Your task to perform on an android device: change the clock display to digital Image 0: 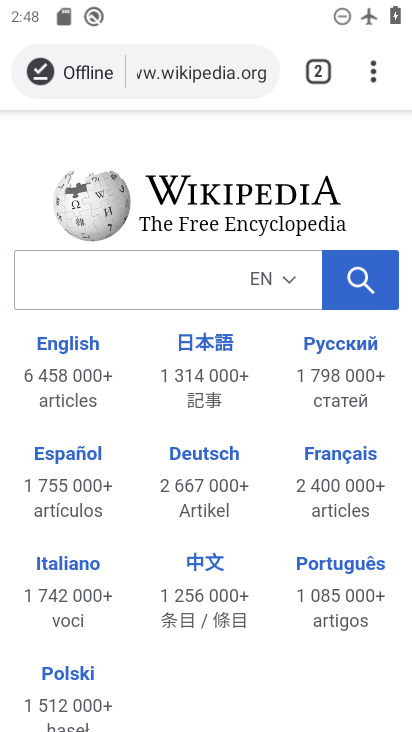
Step 0: press home button
Your task to perform on an android device: change the clock display to digital Image 1: 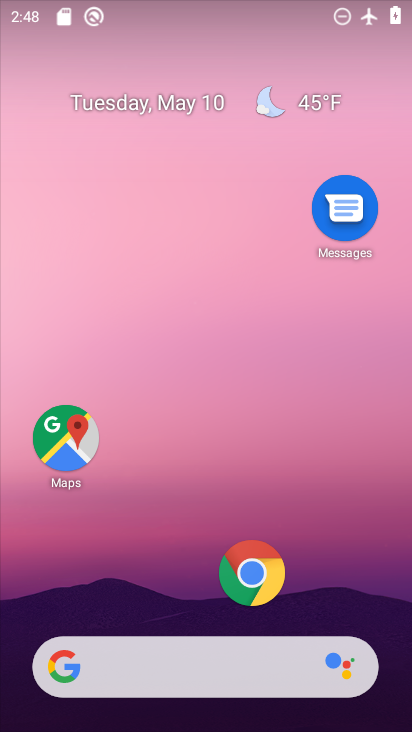
Step 1: drag from (204, 597) to (224, 204)
Your task to perform on an android device: change the clock display to digital Image 2: 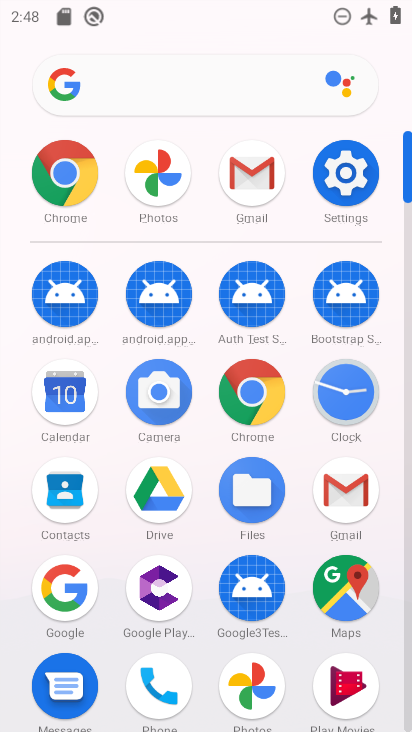
Step 2: click (344, 394)
Your task to perform on an android device: change the clock display to digital Image 3: 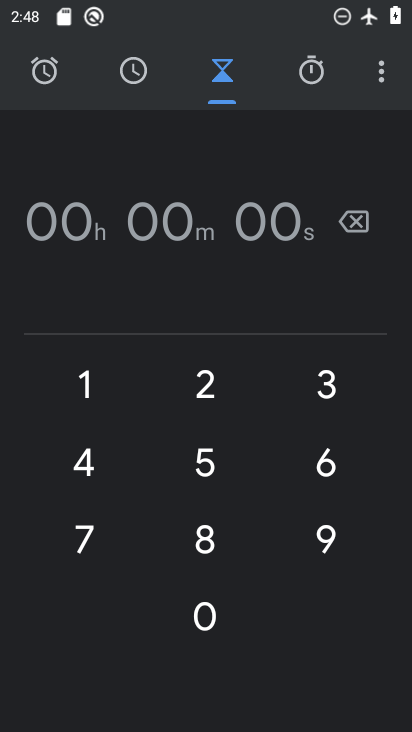
Step 3: click (384, 74)
Your task to perform on an android device: change the clock display to digital Image 4: 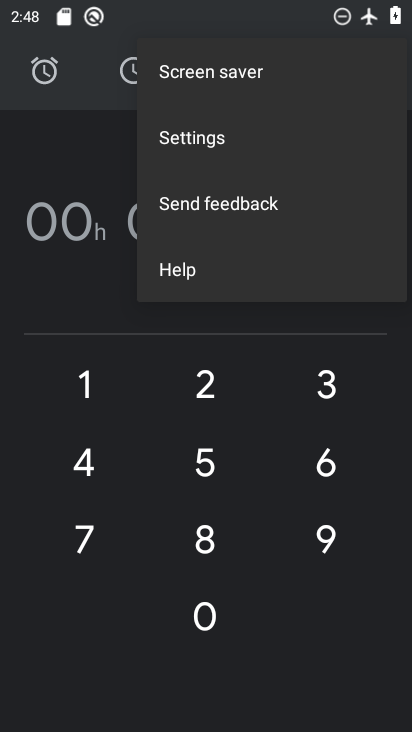
Step 4: click (195, 155)
Your task to perform on an android device: change the clock display to digital Image 5: 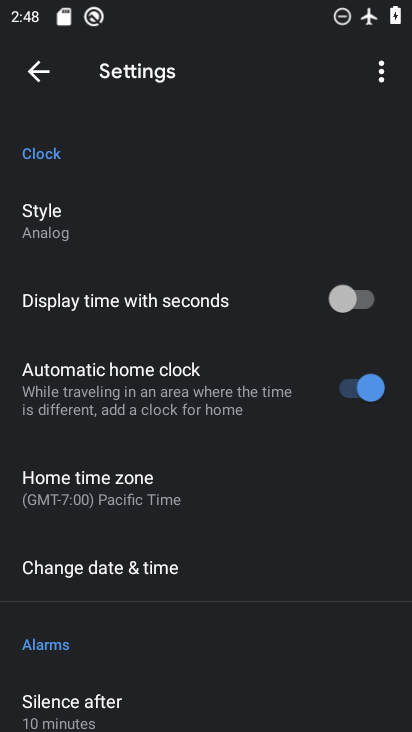
Step 5: click (85, 233)
Your task to perform on an android device: change the clock display to digital Image 6: 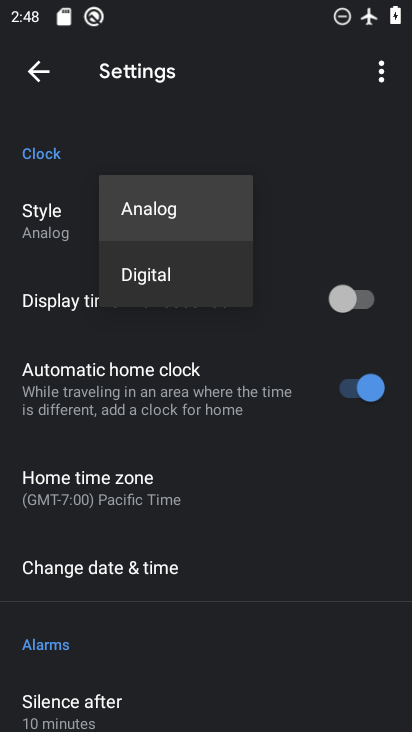
Step 6: click (156, 268)
Your task to perform on an android device: change the clock display to digital Image 7: 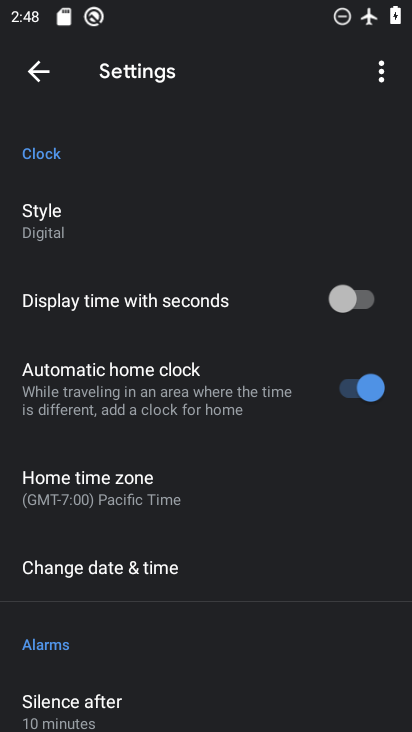
Step 7: task complete